Your task to perform on an android device: uninstall "Reddit" Image 0: 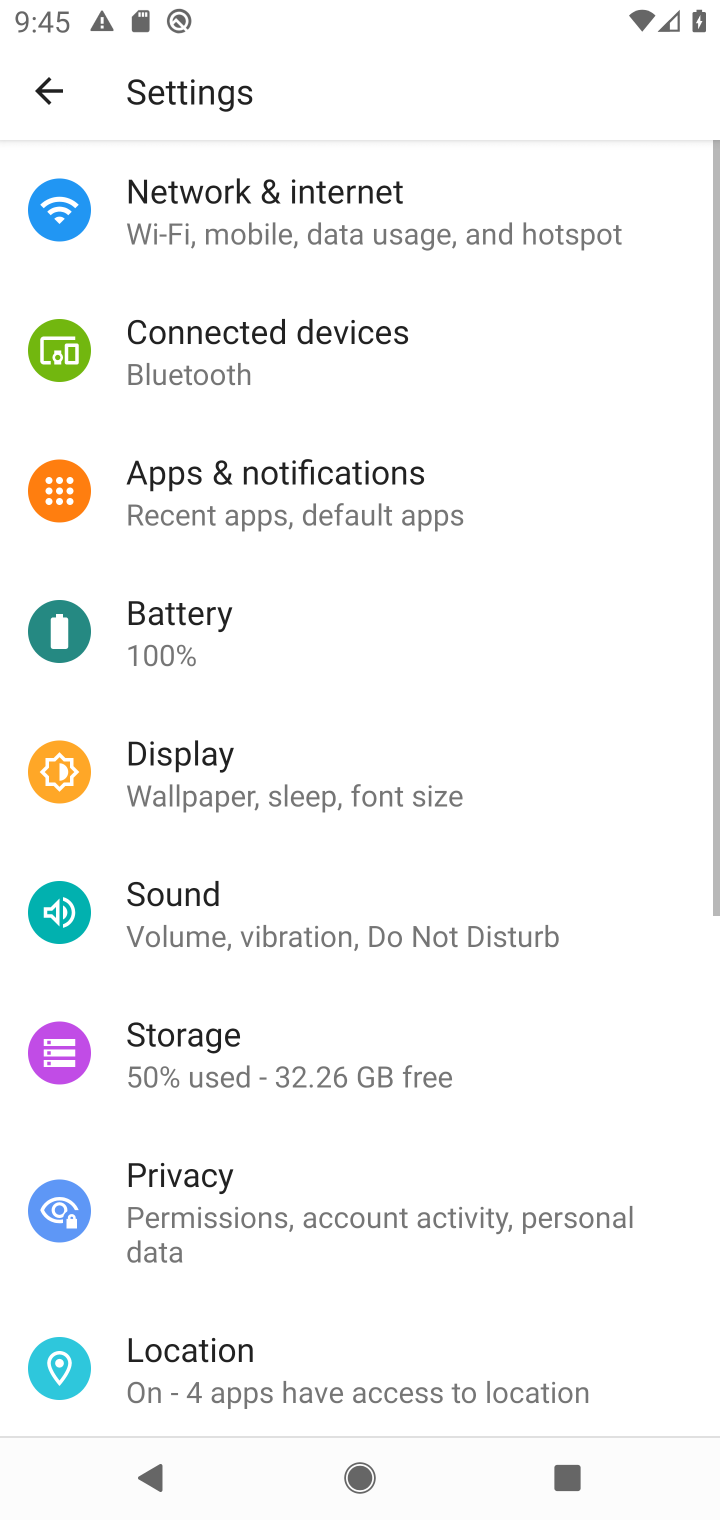
Step 0: press home button
Your task to perform on an android device: uninstall "Reddit" Image 1: 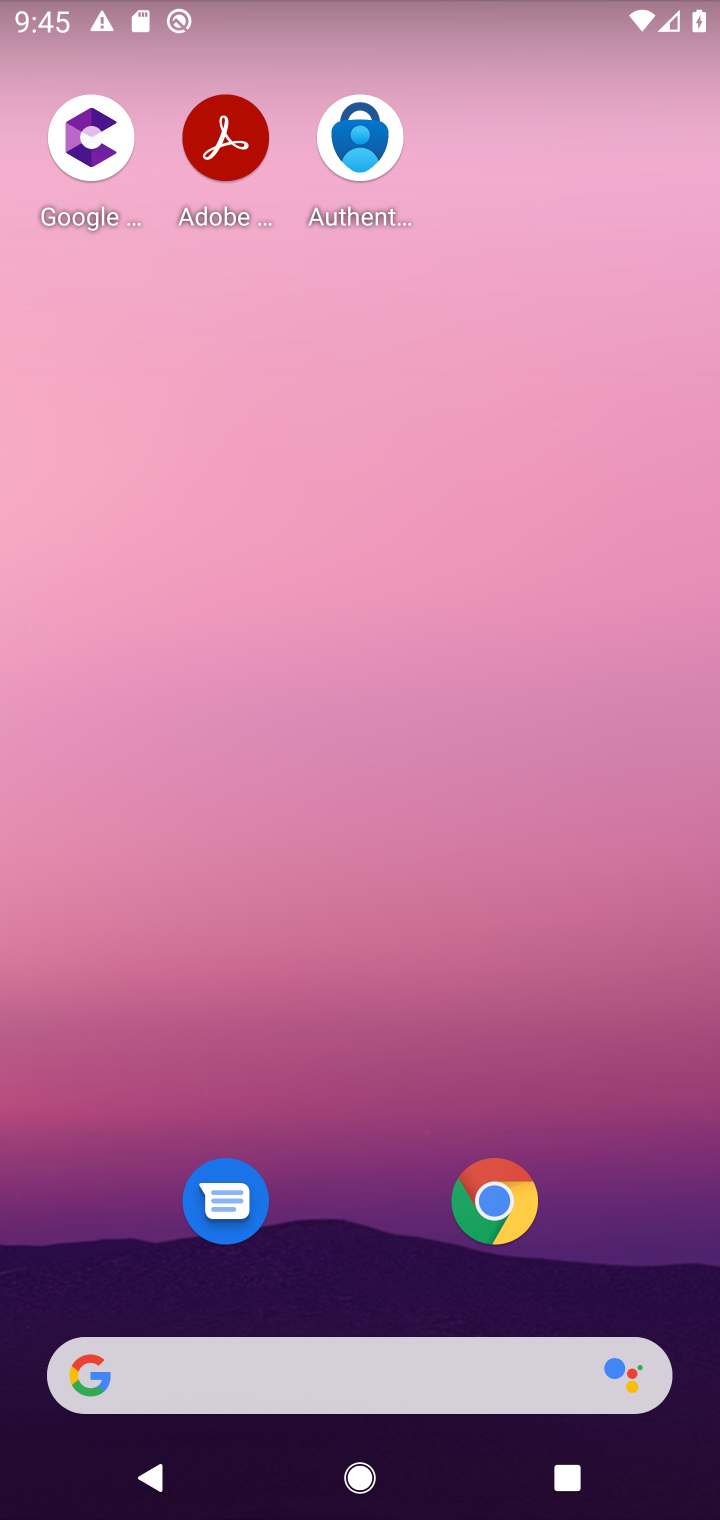
Step 1: drag from (327, 1297) to (270, 13)
Your task to perform on an android device: uninstall "Reddit" Image 2: 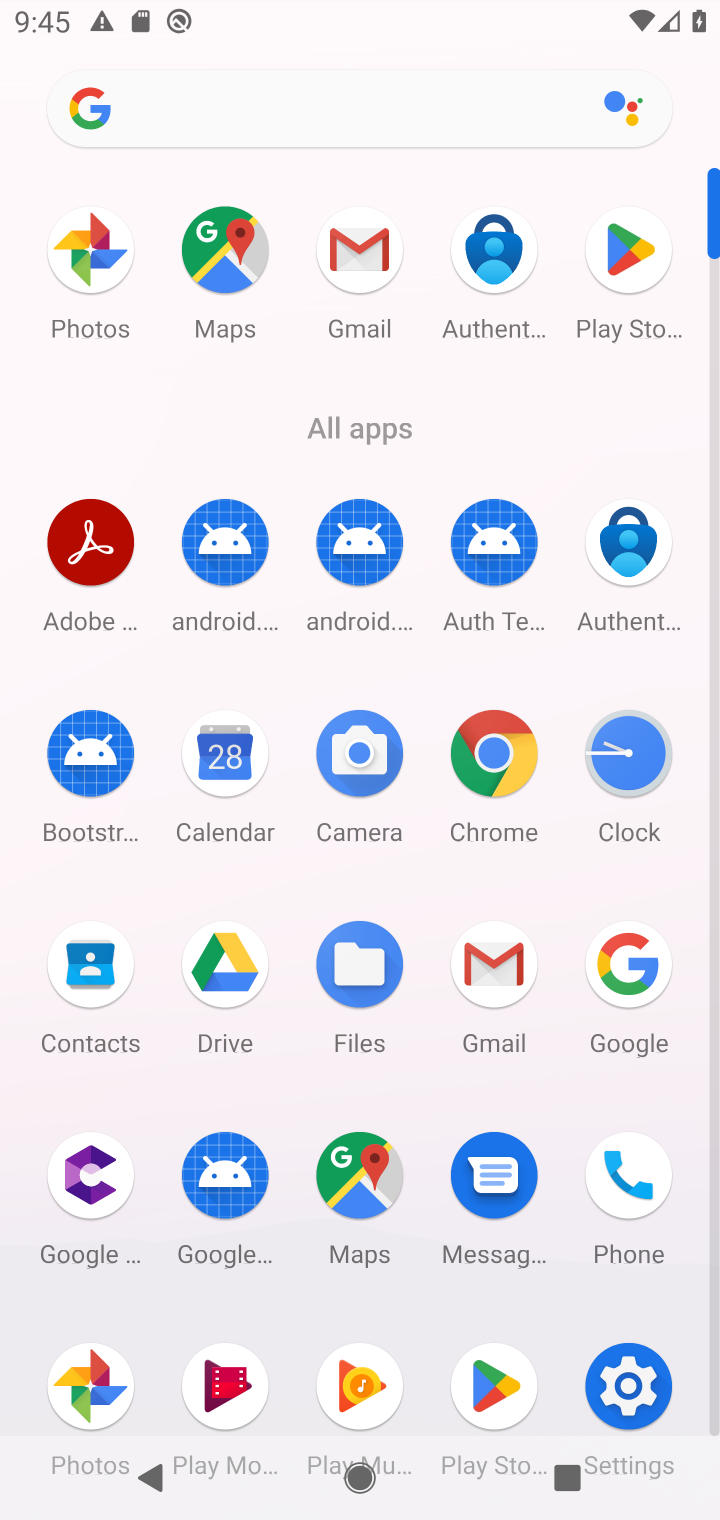
Step 2: click (490, 1385)
Your task to perform on an android device: uninstall "Reddit" Image 3: 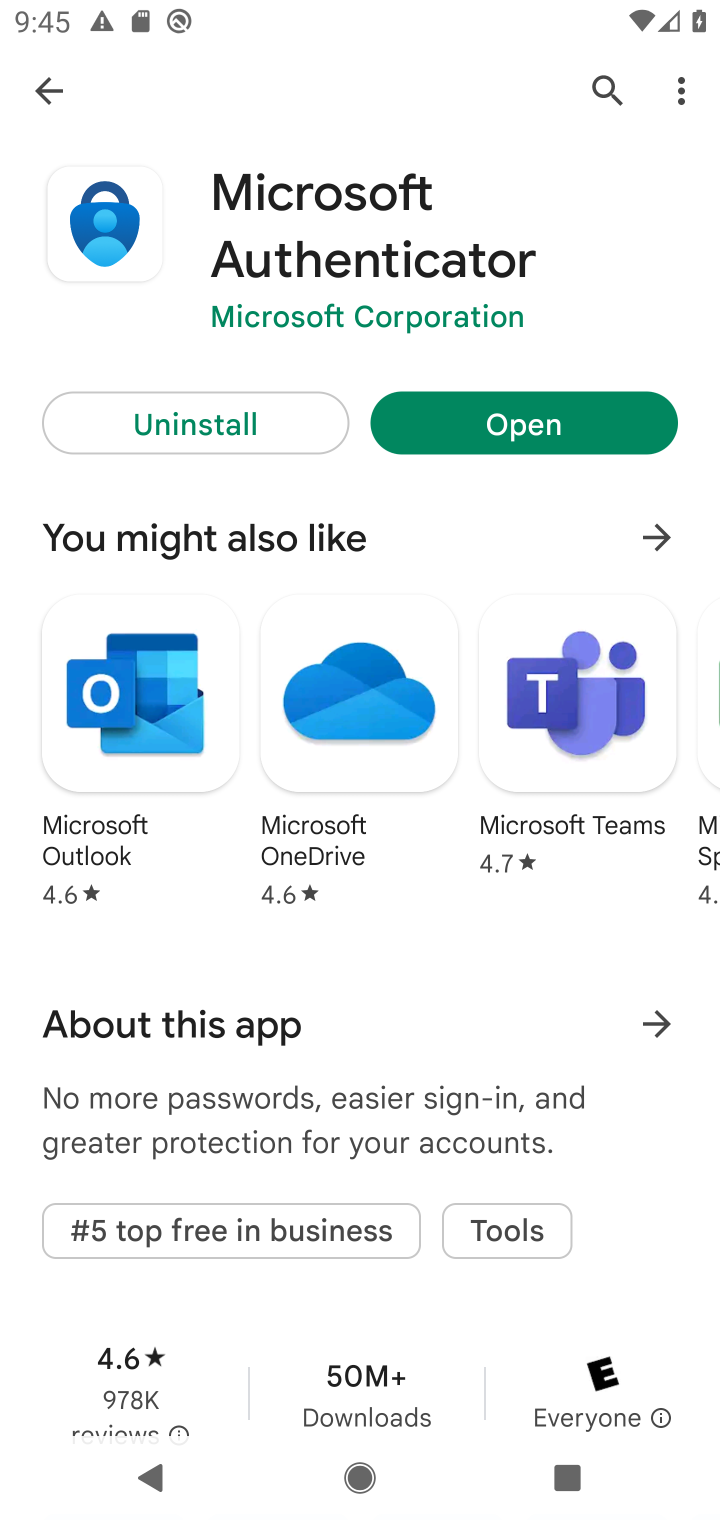
Step 3: click (44, 63)
Your task to perform on an android device: uninstall "Reddit" Image 4: 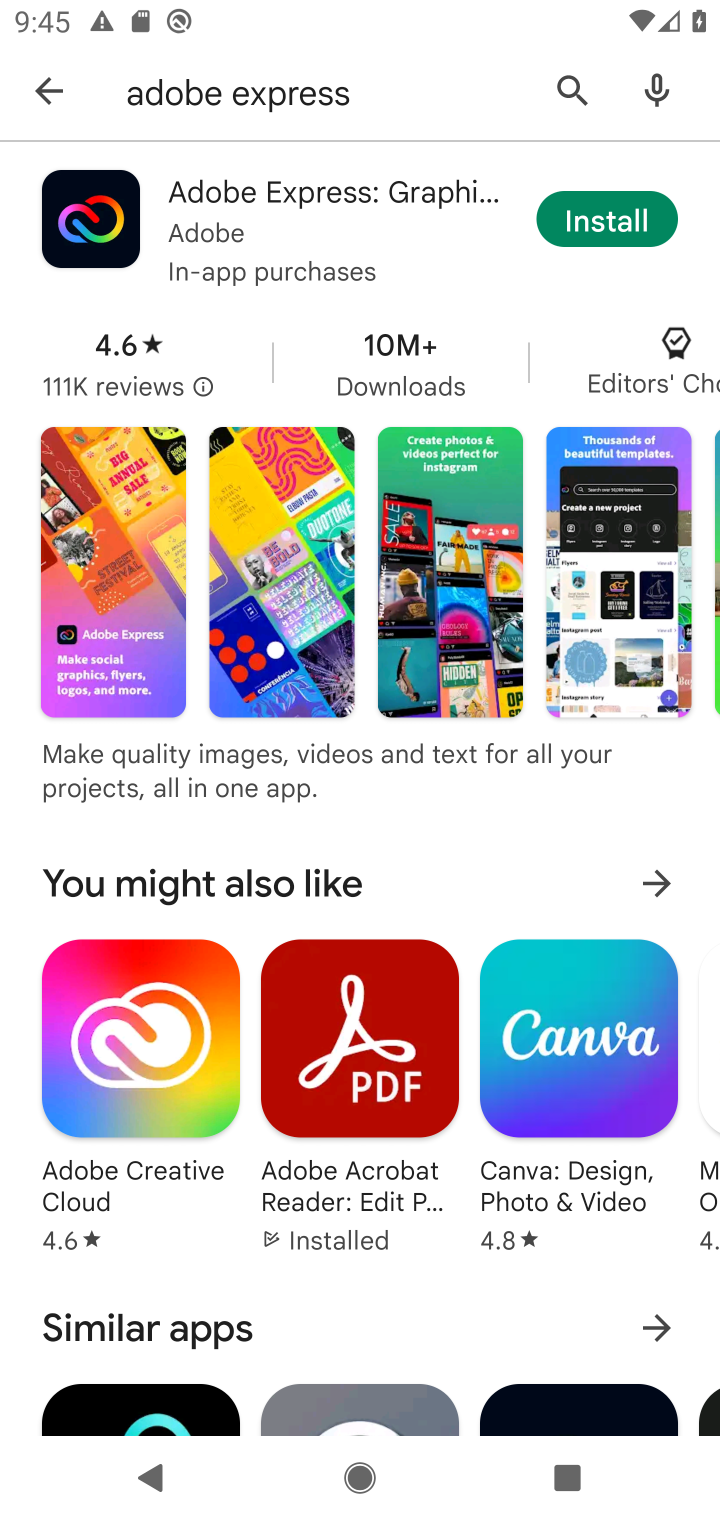
Step 4: click (217, 94)
Your task to perform on an android device: uninstall "Reddit" Image 5: 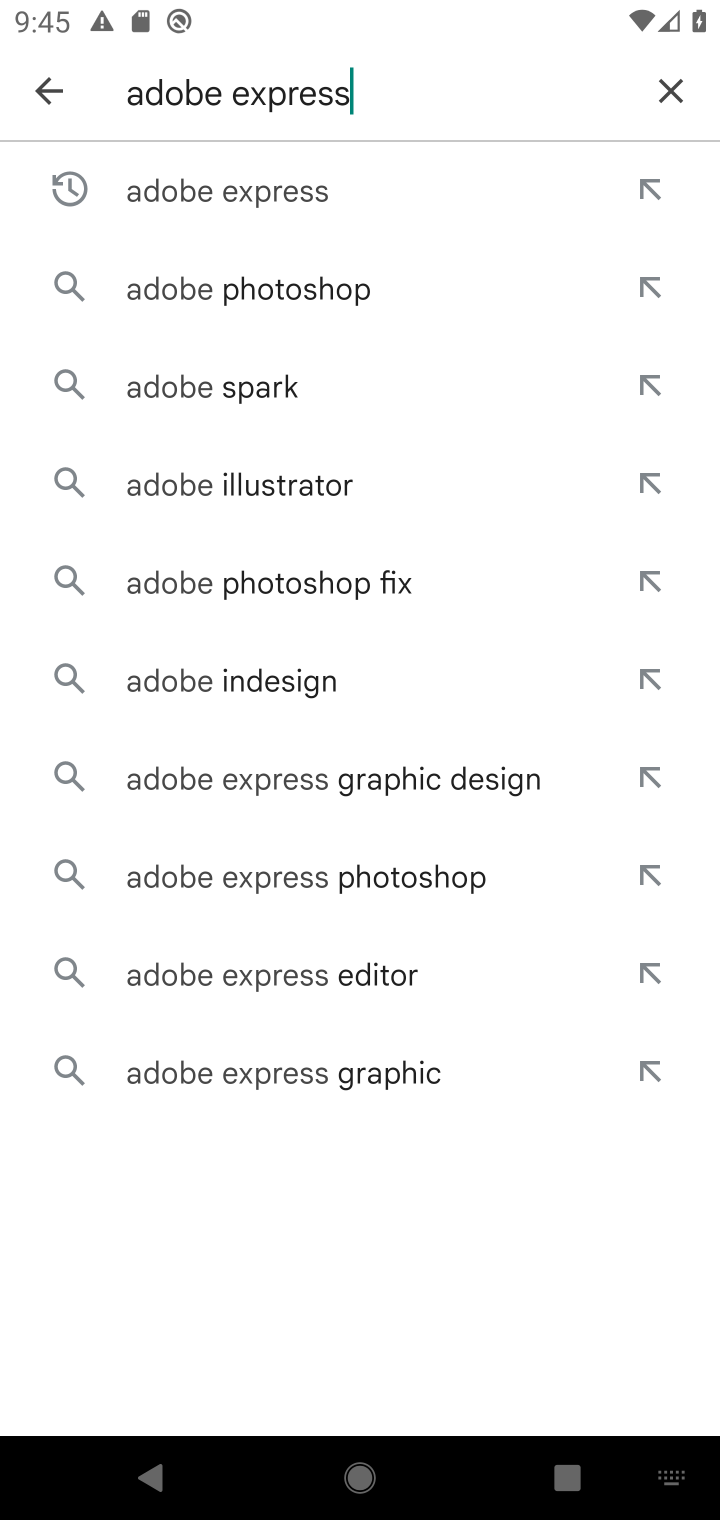
Step 5: click (670, 74)
Your task to perform on an android device: uninstall "Reddit" Image 6: 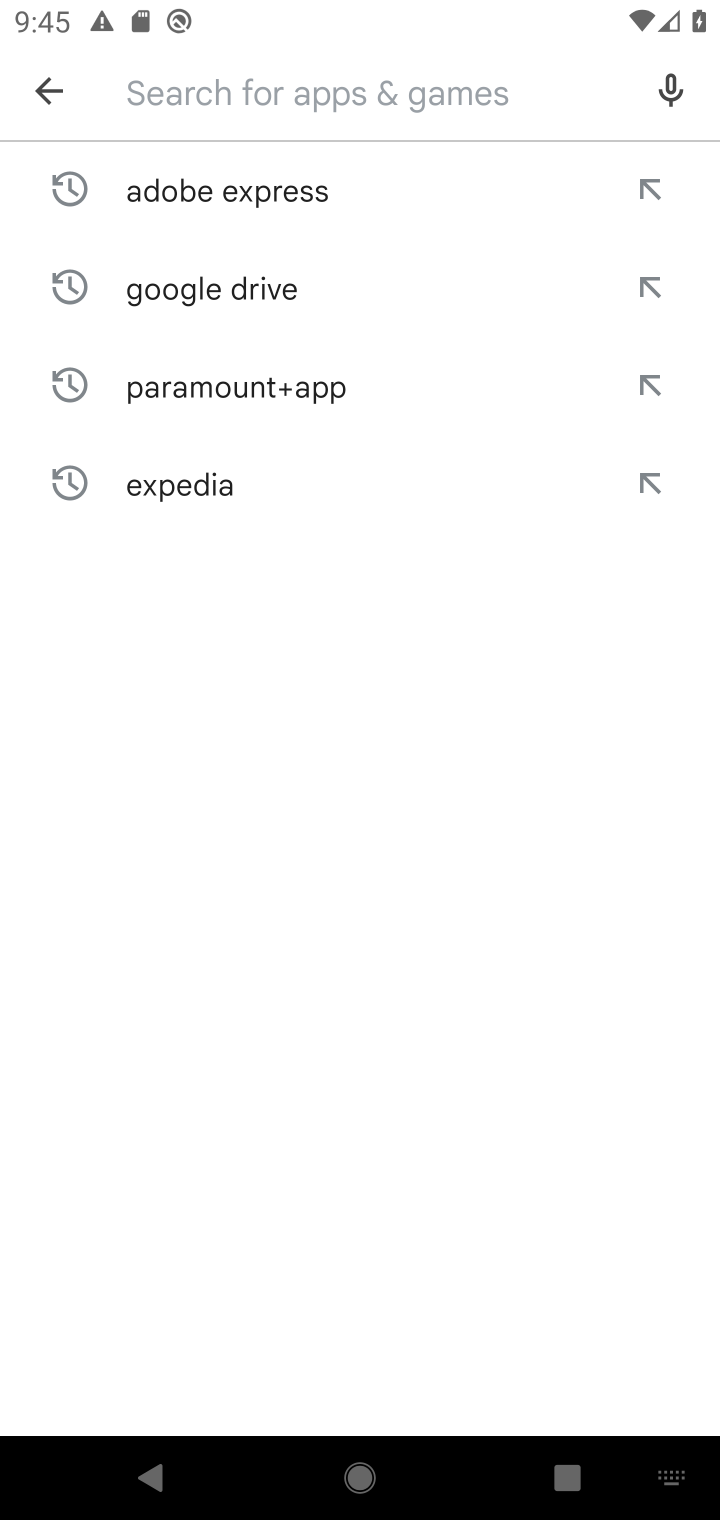
Step 6: type "Reddit"
Your task to perform on an android device: uninstall "Reddit" Image 7: 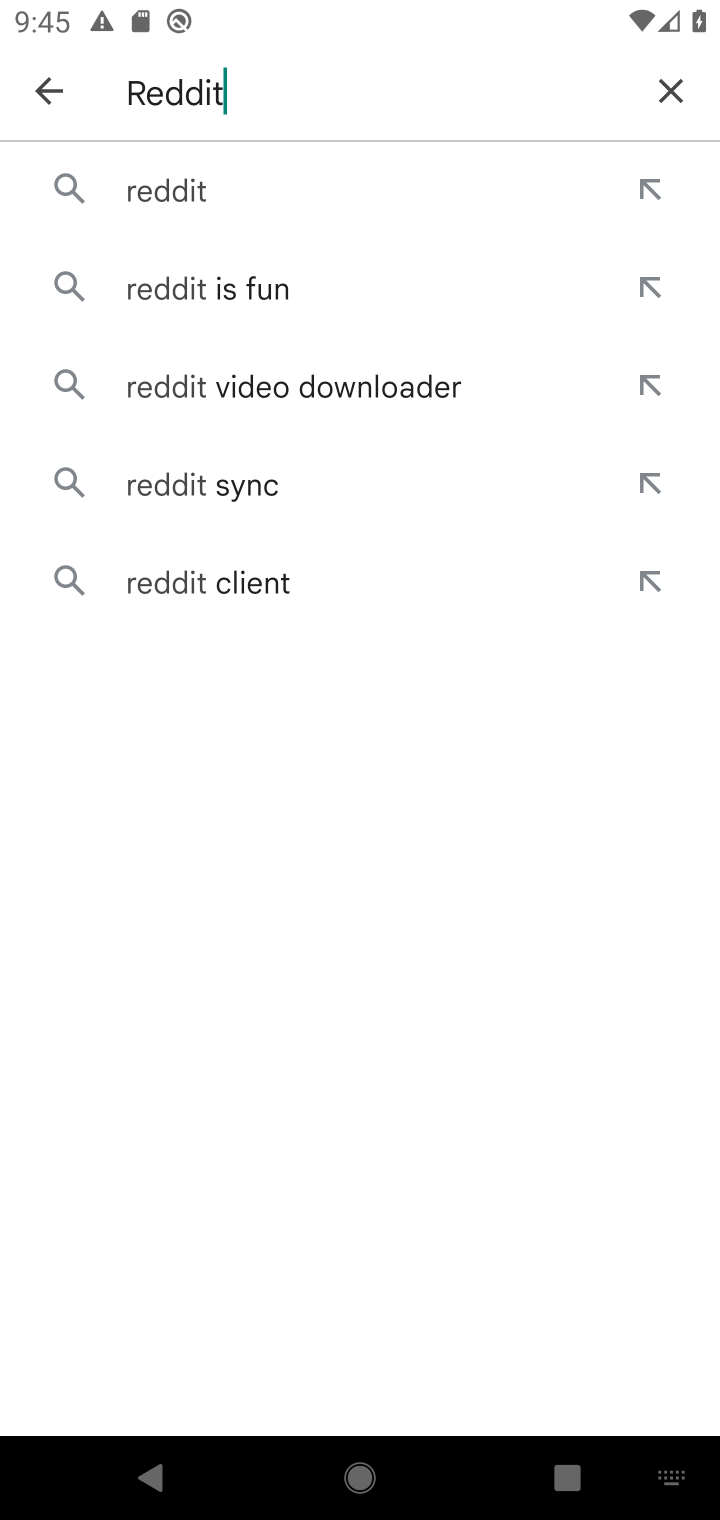
Step 7: click (118, 182)
Your task to perform on an android device: uninstall "Reddit" Image 8: 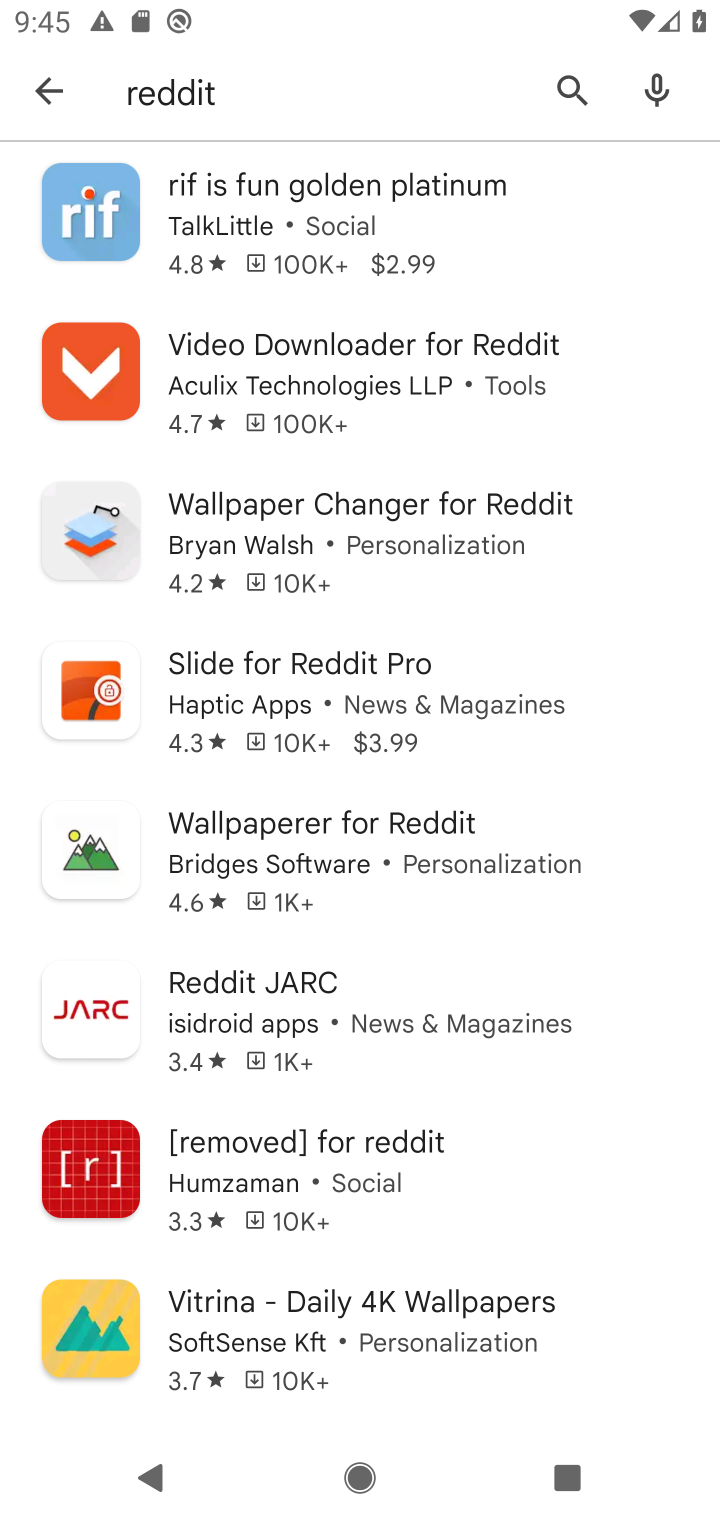
Step 8: task complete